Your task to perform on an android device: Is it going to rain tomorrow? Image 0: 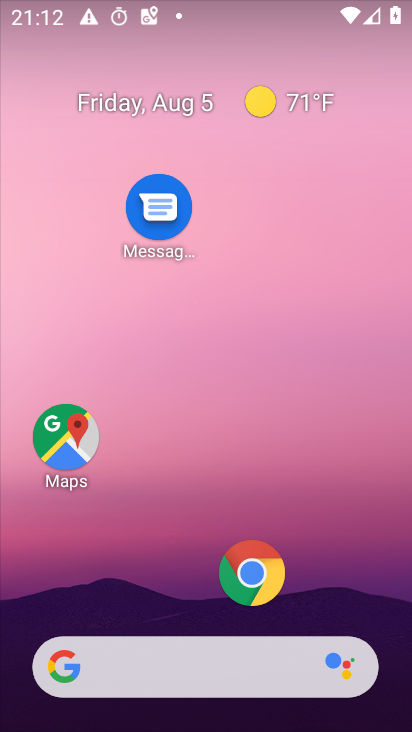
Step 0: press home button
Your task to perform on an android device: Is it going to rain tomorrow? Image 1: 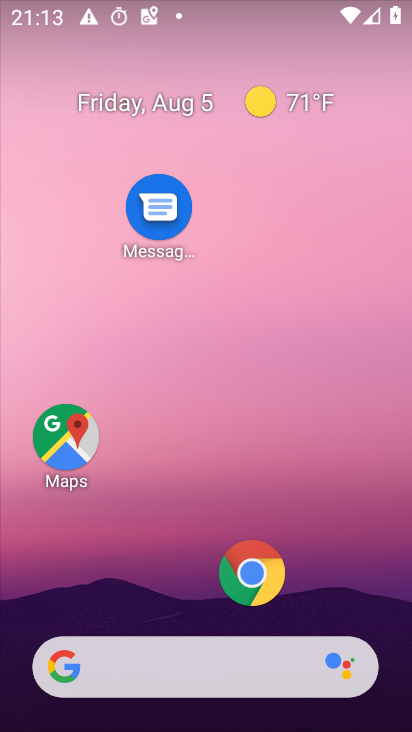
Step 1: click (140, 663)
Your task to perform on an android device: Is it going to rain tomorrow? Image 2: 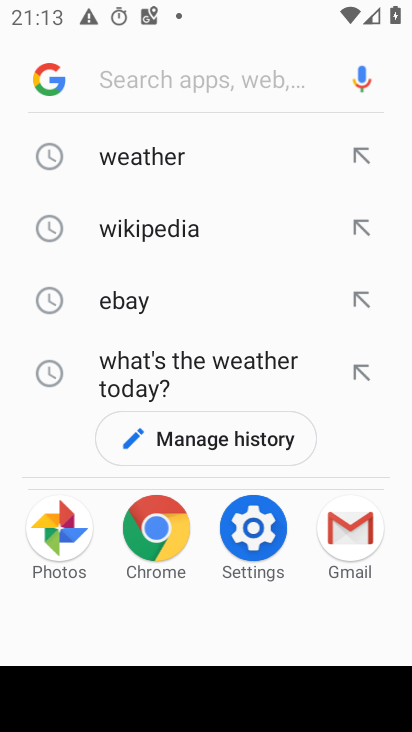
Step 2: click (192, 154)
Your task to perform on an android device: Is it going to rain tomorrow? Image 3: 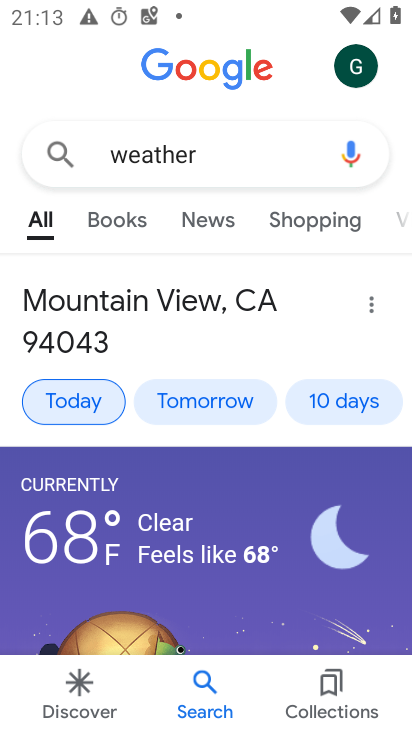
Step 3: drag from (215, 602) to (239, 270)
Your task to perform on an android device: Is it going to rain tomorrow? Image 4: 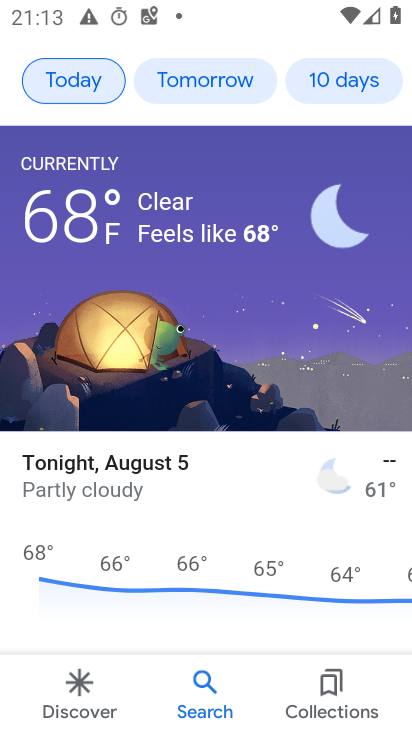
Step 4: drag from (229, 547) to (228, 169)
Your task to perform on an android device: Is it going to rain tomorrow? Image 5: 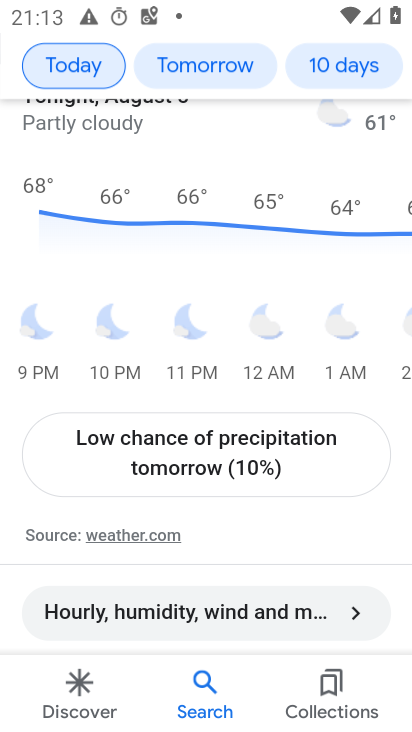
Step 5: drag from (353, 328) to (15, 333)
Your task to perform on an android device: Is it going to rain tomorrow? Image 6: 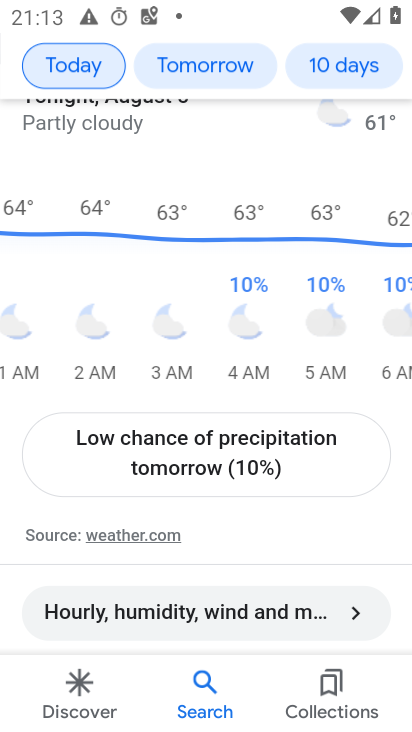
Step 6: drag from (393, 323) to (17, 322)
Your task to perform on an android device: Is it going to rain tomorrow? Image 7: 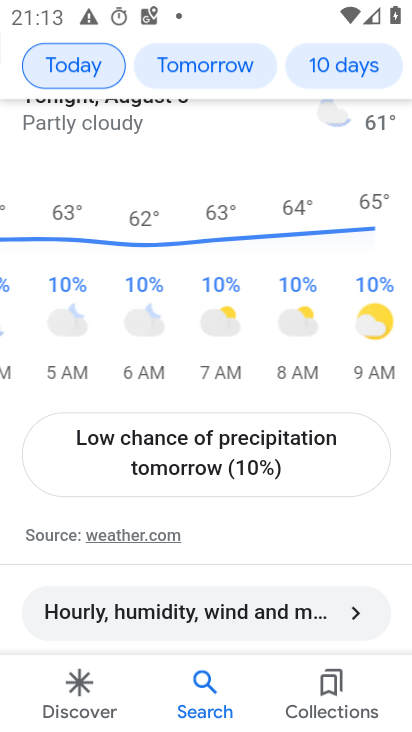
Step 7: click (205, 61)
Your task to perform on an android device: Is it going to rain tomorrow? Image 8: 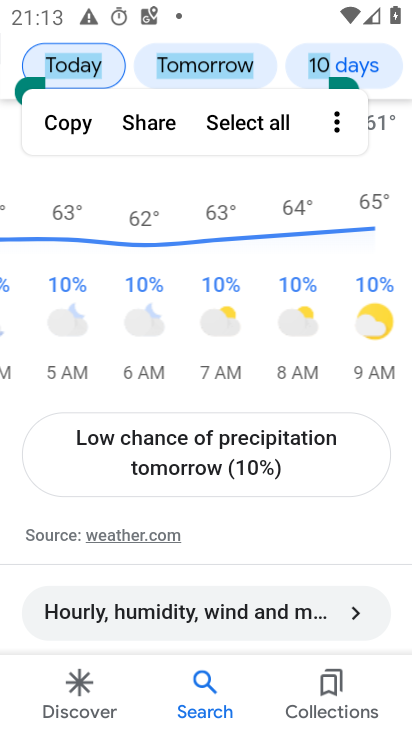
Step 8: click (209, 65)
Your task to perform on an android device: Is it going to rain tomorrow? Image 9: 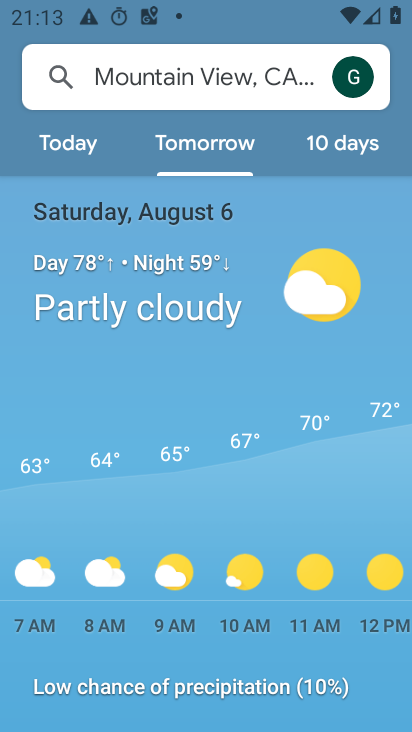
Step 9: click (390, 623)
Your task to perform on an android device: Is it going to rain tomorrow? Image 10: 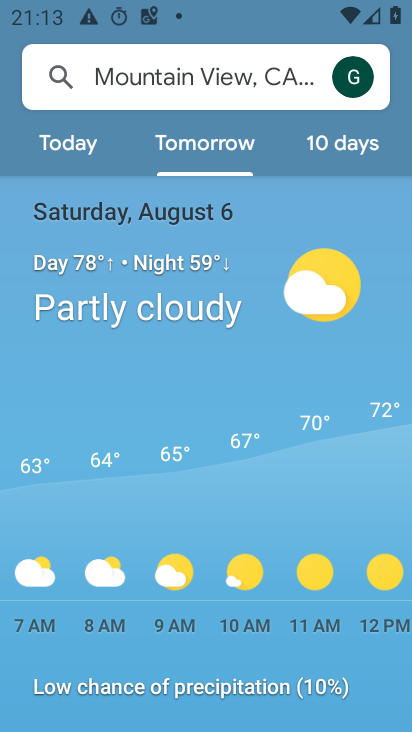
Step 10: click (385, 625)
Your task to perform on an android device: Is it going to rain tomorrow? Image 11: 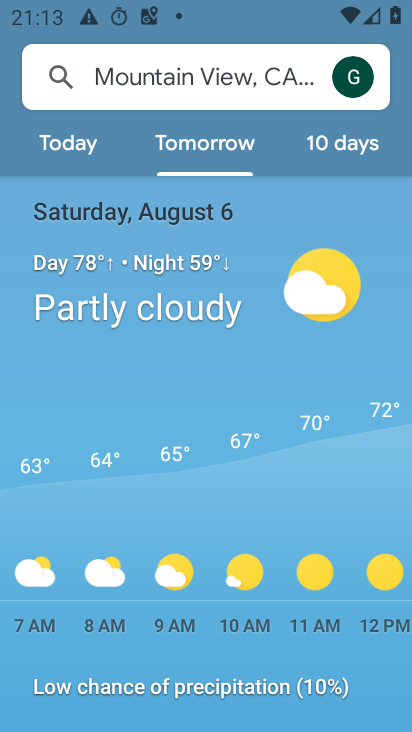
Step 11: task complete